Your task to perform on an android device: Go to ESPN.com Image 0: 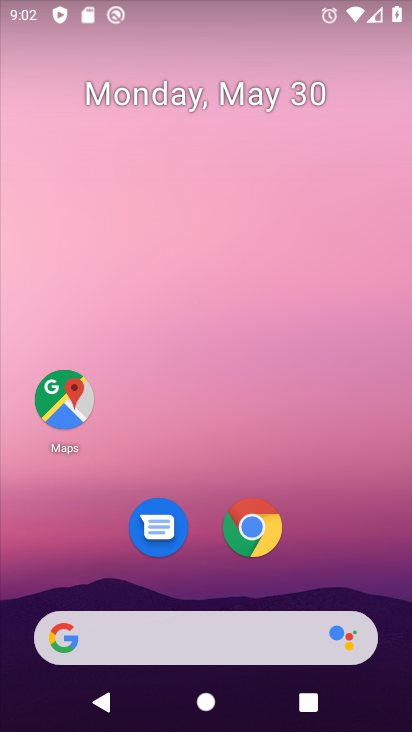
Step 0: drag from (181, 623) to (409, 3)
Your task to perform on an android device: Go to ESPN.com Image 1: 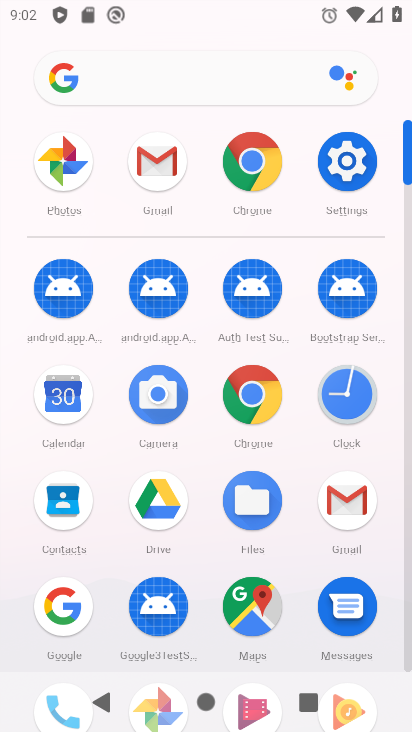
Step 1: click (268, 390)
Your task to perform on an android device: Go to ESPN.com Image 2: 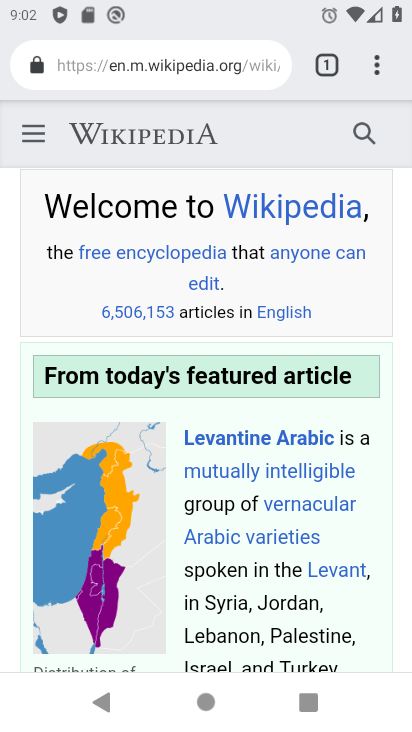
Step 2: click (202, 63)
Your task to perform on an android device: Go to ESPN.com Image 3: 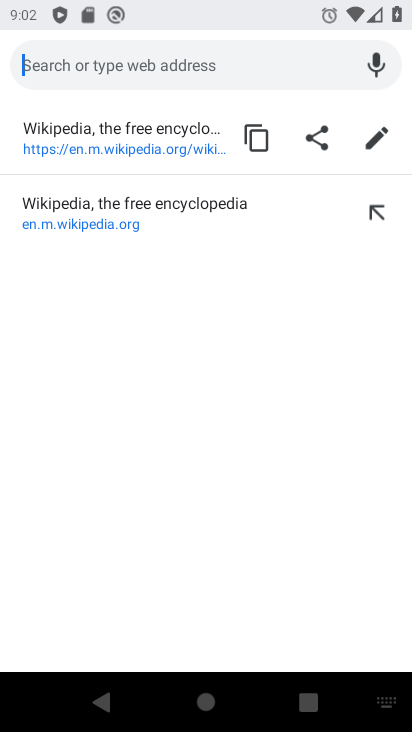
Step 3: type "espn.com"
Your task to perform on an android device: Go to ESPN.com Image 4: 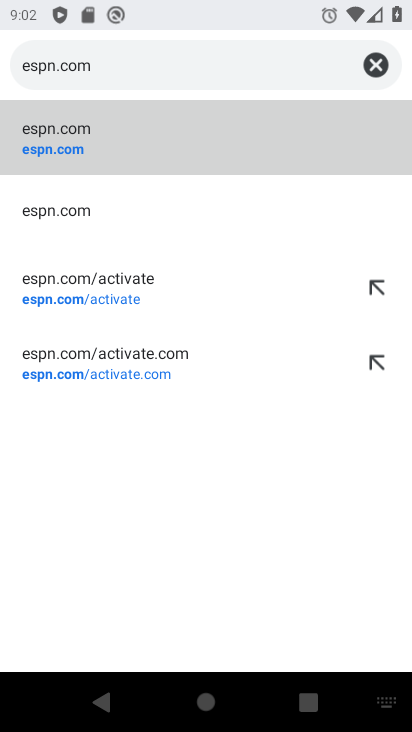
Step 4: click (331, 144)
Your task to perform on an android device: Go to ESPN.com Image 5: 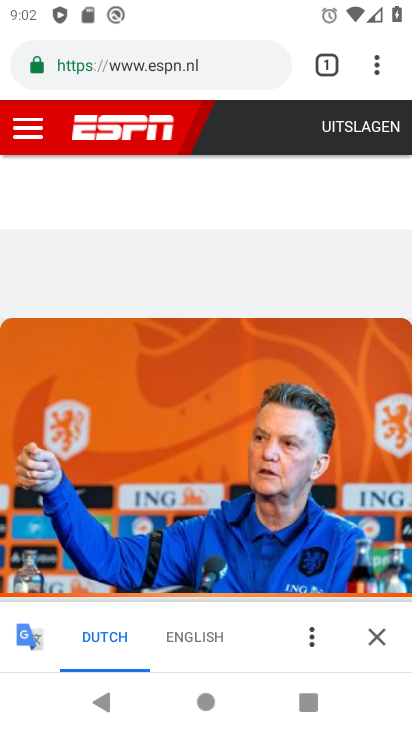
Step 5: task complete